Your task to perform on an android device: turn on airplane mode Image 0: 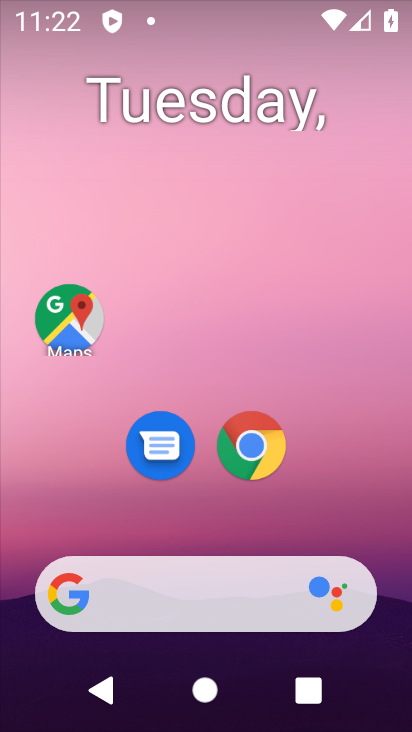
Step 0: drag from (319, 504) to (286, 24)
Your task to perform on an android device: turn on airplane mode Image 1: 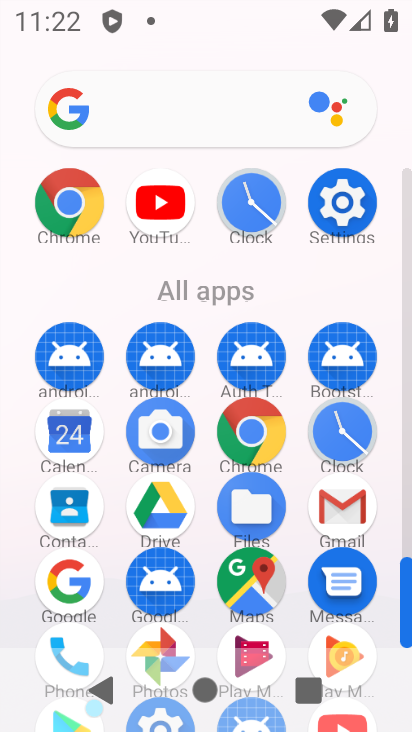
Step 1: drag from (4, 621) to (0, 271)
Your task to perform on an android device: turn on airplane mode Image 2: 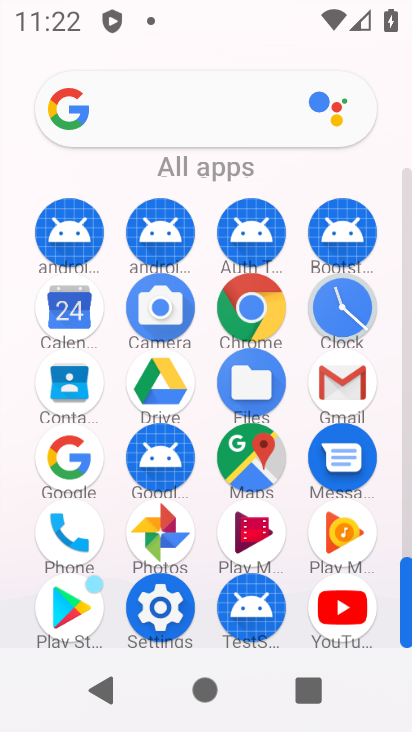
Step 2: click (158, 608)
Your task to perform on an android device: turn on airplane mode Image 3: 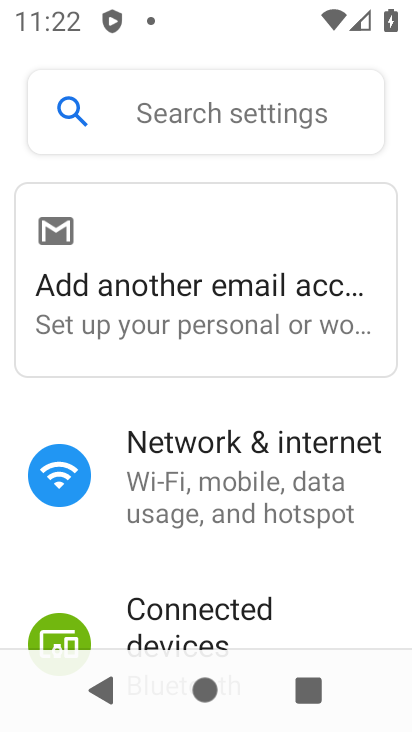
Step 3: click (277, 475)
Your task to perform on an android device: turn on airplane mode Image 4: 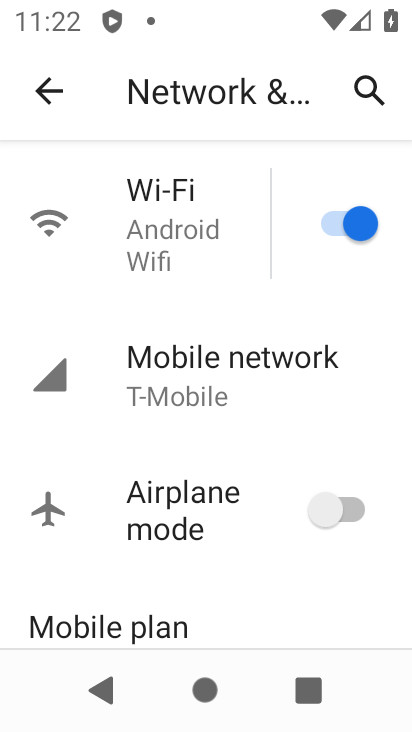
Step 4: click (346, 509)
Your task to perform on an android device: turn on airplane mode Image 5: 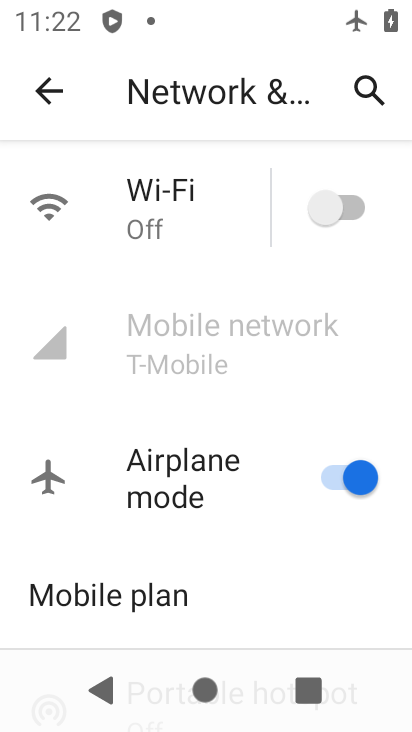
Step 5: task complete